Your task to perform on an android device: turn off sleep mode Image 0: 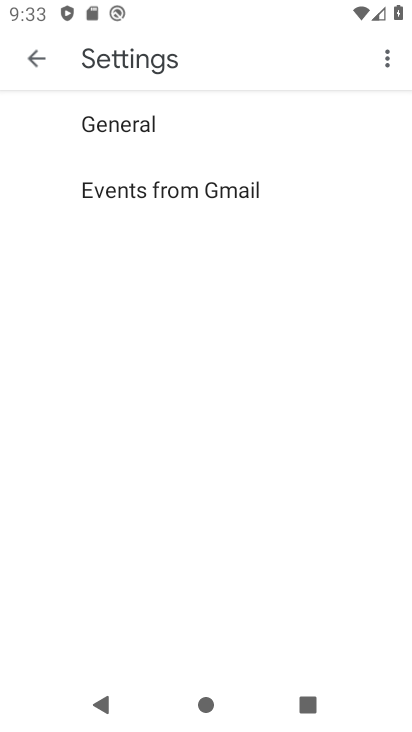
Step 0: press home button
Your task to perform on an android device: turn off sleep mode Image 1: 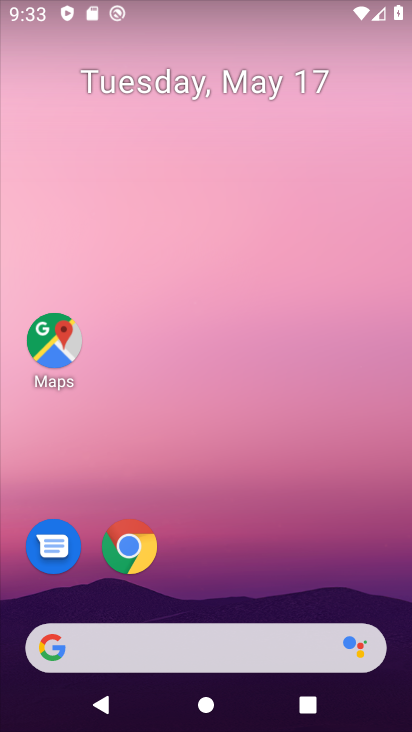
Step 1: drag from (267, 456) to (259, 231)
Your task to perform on an android device: turn off sleep mode Image 2: 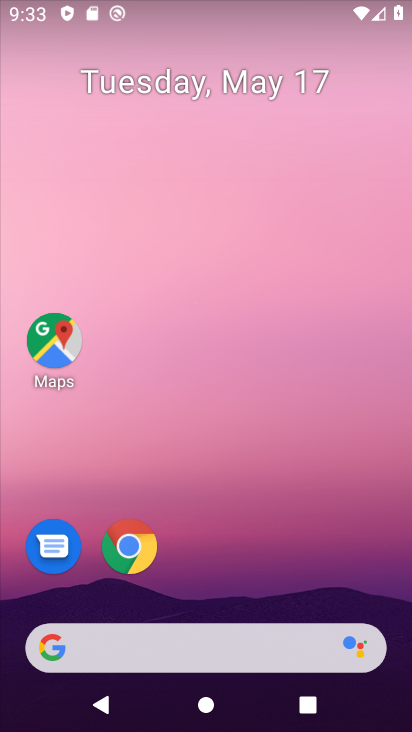
Step 2: drag from (242, 411) to (254, 297)
Your task to perform on an android device: turn off sleep mode Image 3: 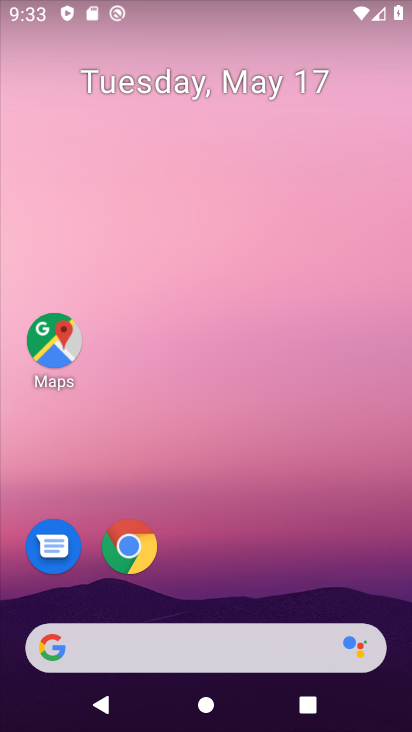
Step 3: drag from (231, 591) to (229, 264)
Your task to perform on an android device: turn off sleep mode Image 4: 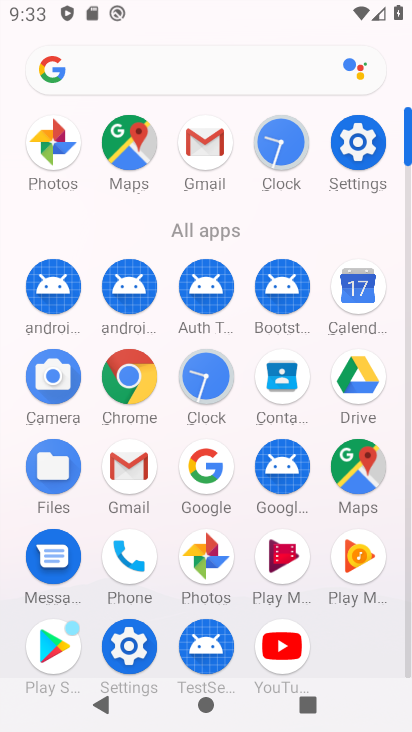
Step 4: click (374, 141)
Your task to perform on an android device: turn off sleep mode Image 5: 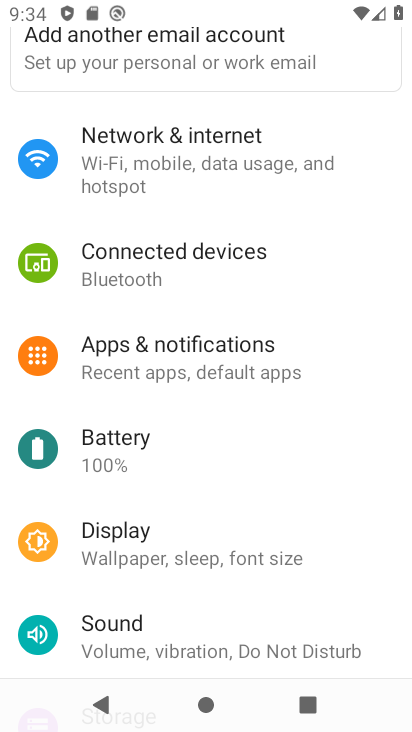
Step 5: task complete